Your task to perform on an android device: Open calendar and show me the first week of next month Image 0: 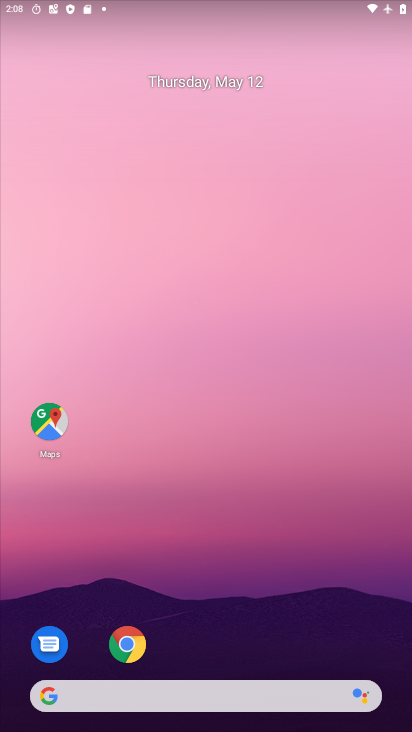
Step 0: drag from (257, 518) to (177, 100)
Your task to perform on an android device: Open calendar and show me the first week of next month Image 1: 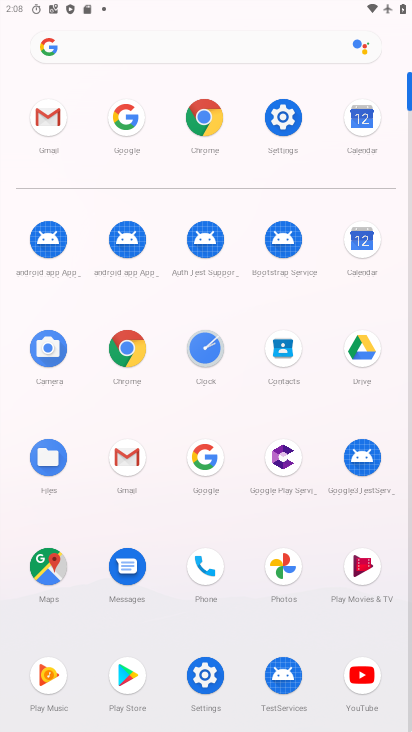
Step 1: click (363, 232)
Your task to perform on an android device: Open calendar and show me the first week of next month Image 2: 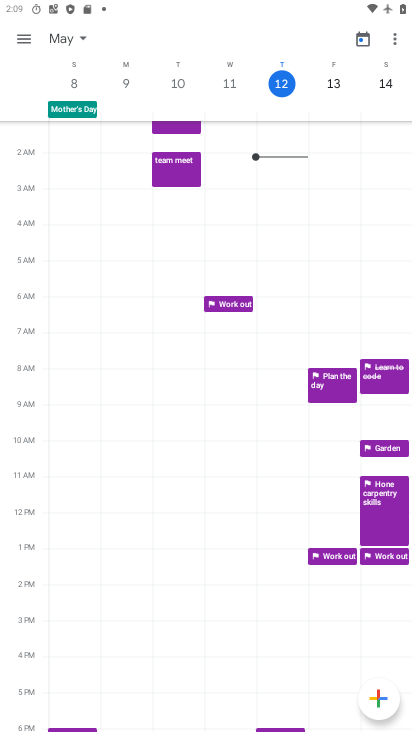
Step 2: click (82, 38)
Your task to perform on an android device: Open calendar and show me the first week of next month Image 3: 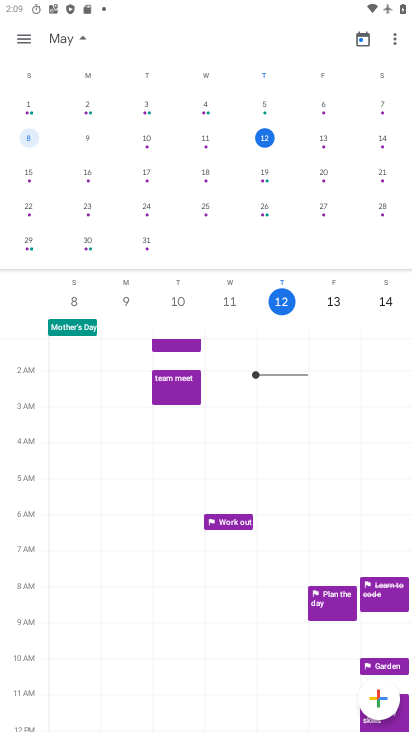
Step 3: task complete